Your task to perform on an android device: star an email in the gmail app Image 0: 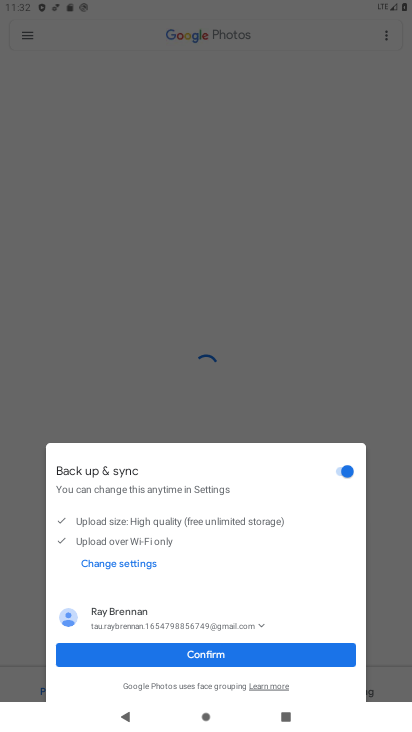
Step 0: press home button
Your task to perform on an android device: star an email in the gmail app Image 1: 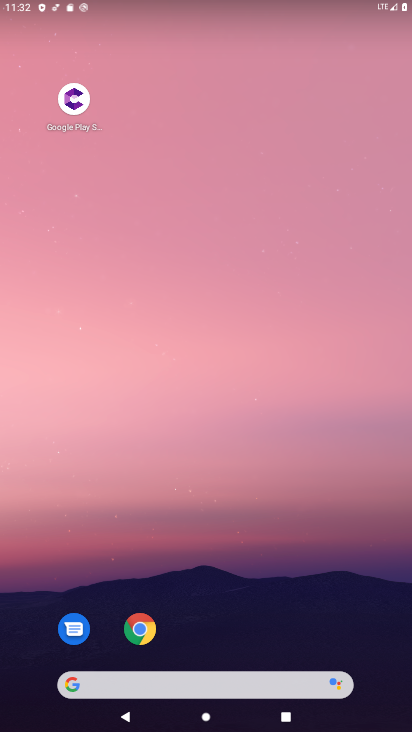
Step 1: drag from (170, 644) to (274, 165)
Your task to perform on an android device: star an email in the gmail app Image 2: 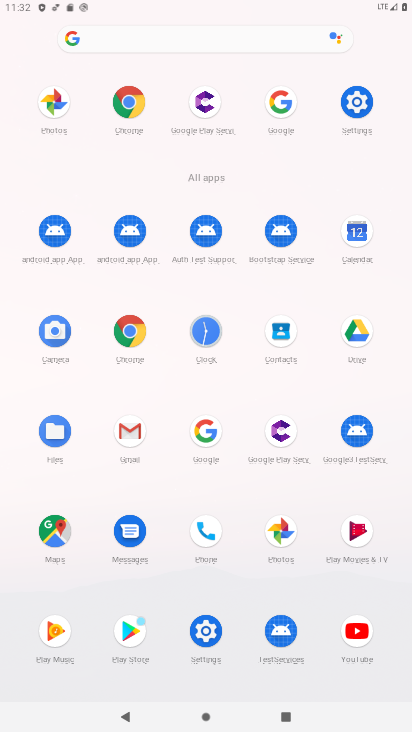
Step 2: click (133, 432)
Your task to perform on an android device: star an email in the gmail app Image 3: 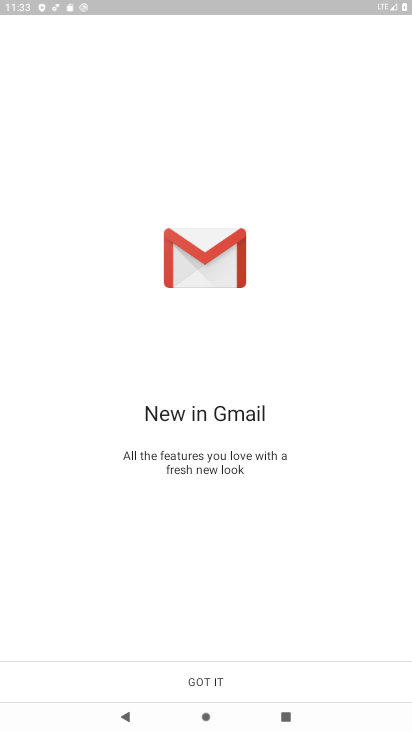
Step 3: click (230, 662)
Your task to perform on an android device: star an email in the gmail app Image 4: 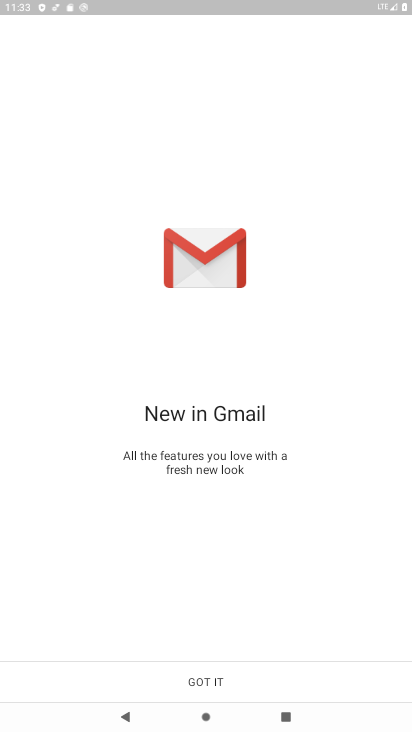
Step 4: click (220, 687)
Your task to perform on an android device: star an email in the gmail app Image 5: 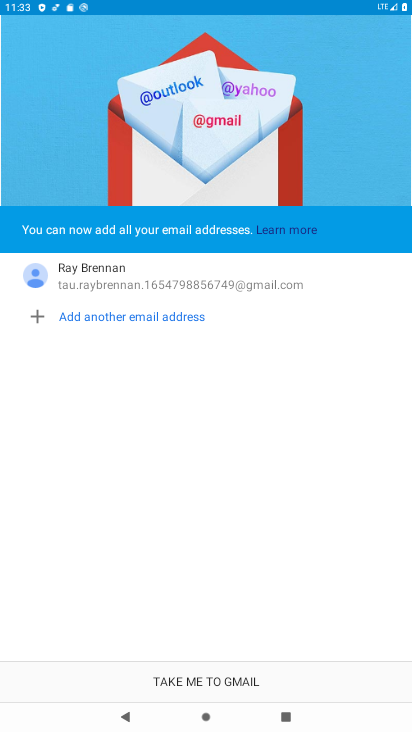
Step 5: click (193, 689)
Your task to perform on an android device: star an email in the gmail app Image 6: 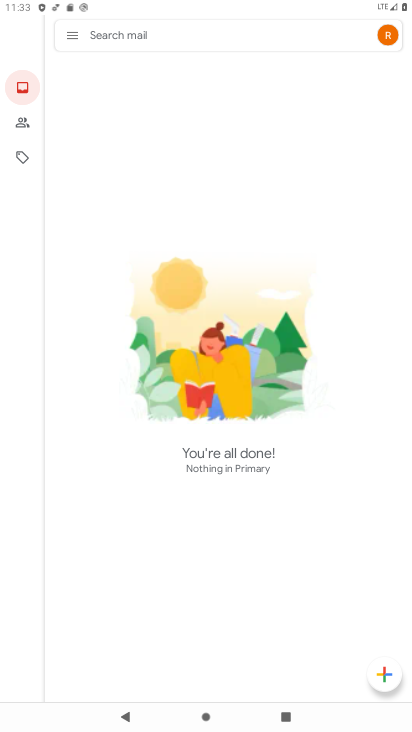
Step 6: task complete